Your task to perform on an android device: search for starred emails in the gmail app Image 0: 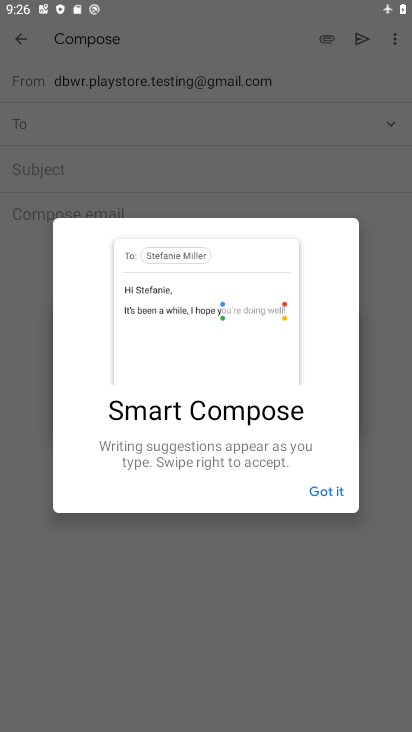
Step 0: press home button
Your task to perform on an android device: search for starred emails in the gmail app Image 1: 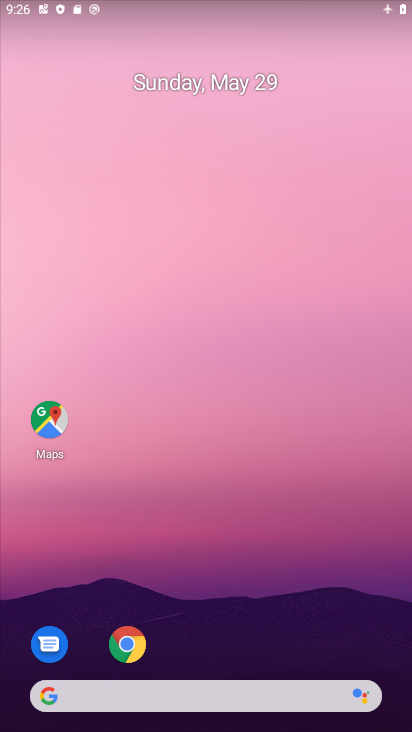
Step 1: drag from (301, 589) to (278, 89)
Your task to perform on an android device: search for starred emails in the gmail app Image 2: 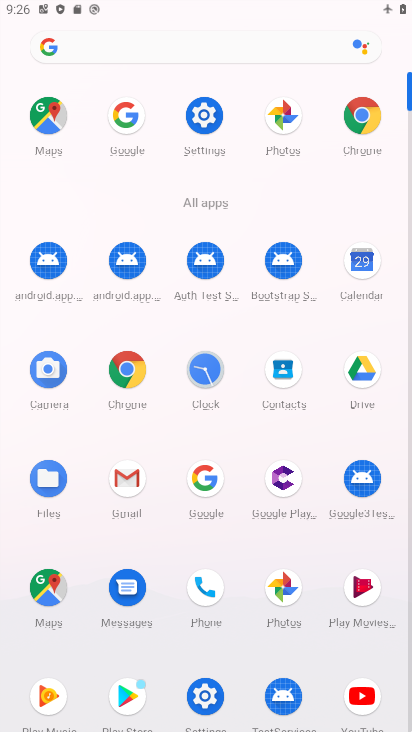
Step 2: click (122, 478)
Your task to perform on an android device: search for starred emails in the gmail app Image 3: 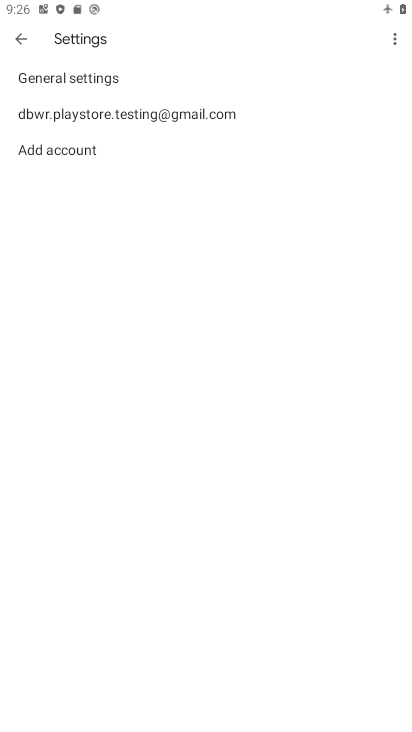
Step 3: click (96, 111)
Your task to perform on an android device: search for starred emails in the gmail app Image 4: 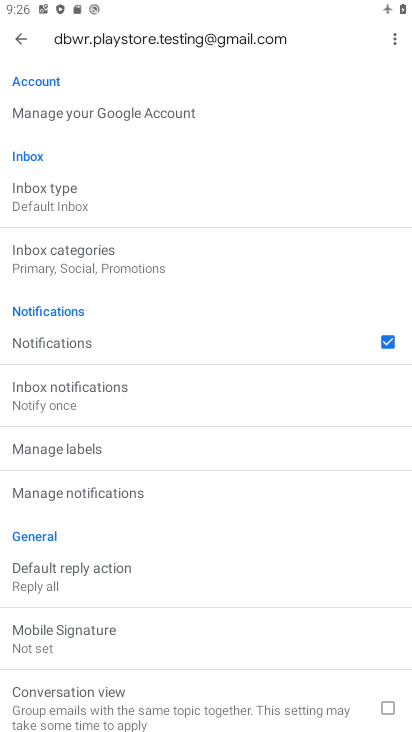
Step 4: click (29, 36)
Your task to perform on an android device: search for starred emails in the gmail app Image 5: 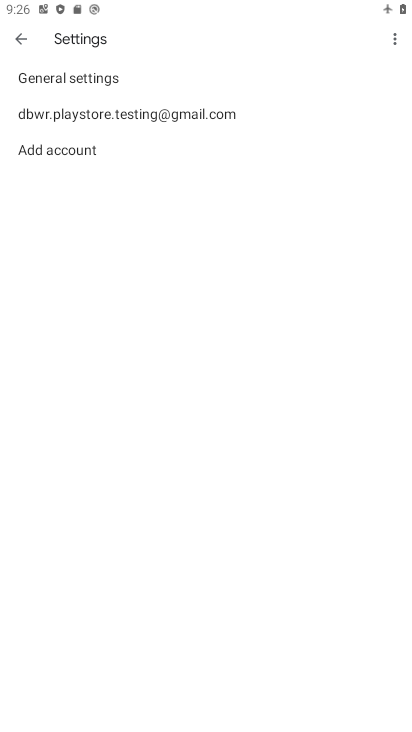
Step 5: click (27, 39)
Your task to perform on an android device: search for starred emails in the gmail app Image 6: 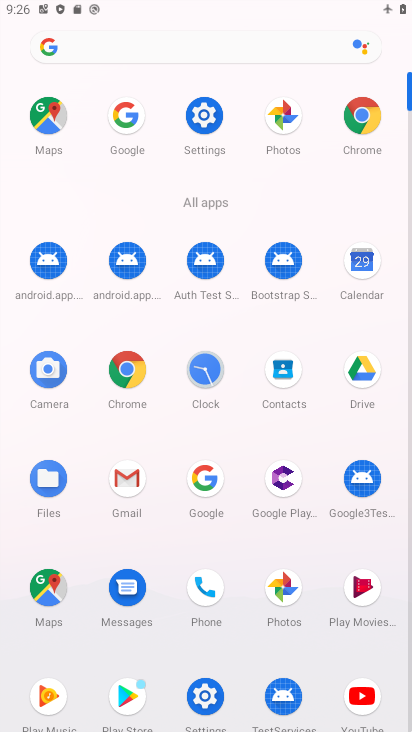
Step 6: click (125, 473)
Your task to perform on an android device: search for starred emails in the gmail app Image 7: 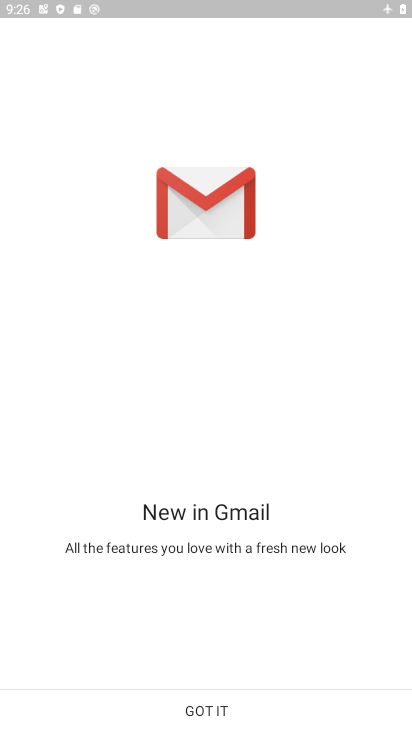
Step 7: click (200, 716)
Your task to perform on an android device: search for starred emails in the gmail app Image 8: 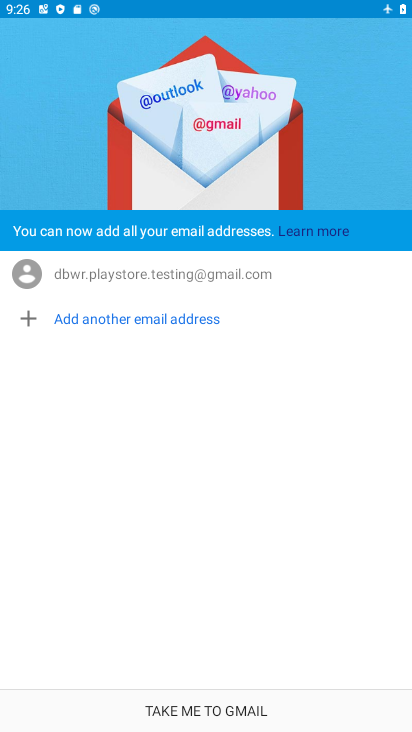
Step 8: click (197, 701)
Your task to perform on an android device: search for starred emails in the gmail app Image 9: 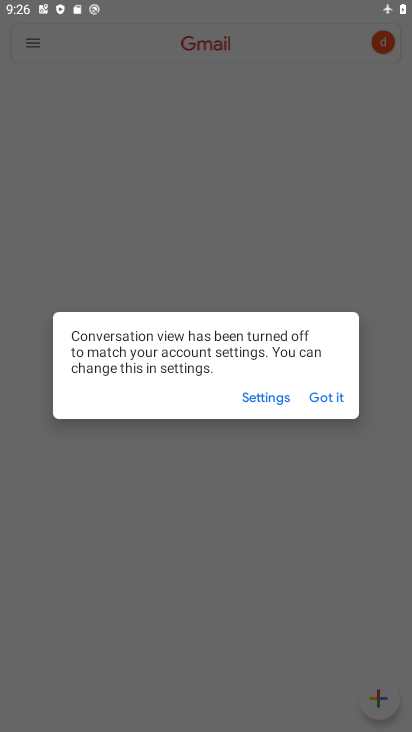
Step 9: click (324, 395)
Your task to perform on an android device: search for starred emails in the gmail app Image 10: 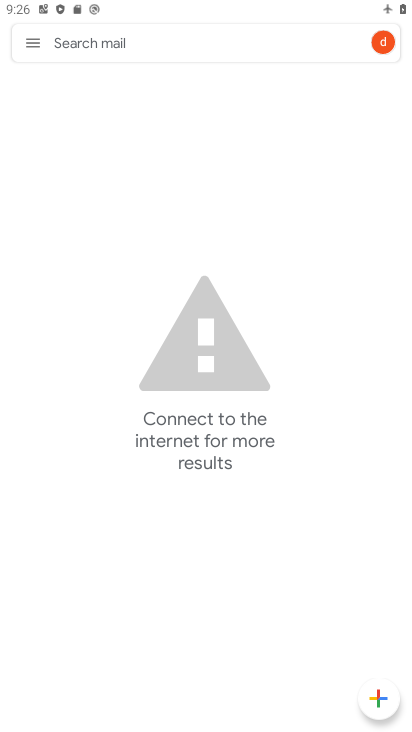
Step 10: click (30, 47)
Your task to perform on an android device: search for starred emails in the gmail app Image 11: 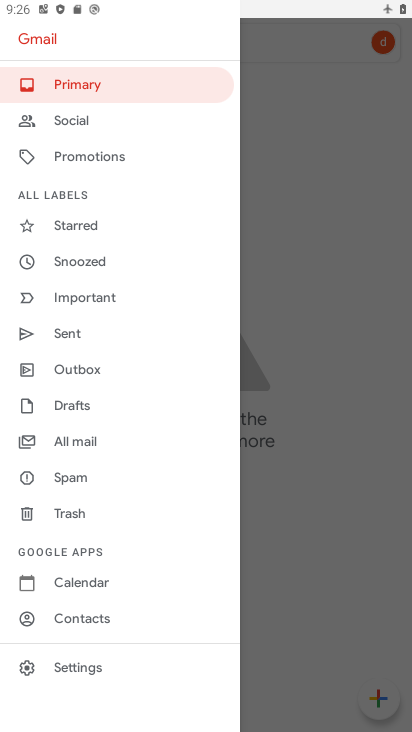
Step 11: click (70, 232)
Your task to perform on an android device: search for starred emails in the gmail app Image 12: 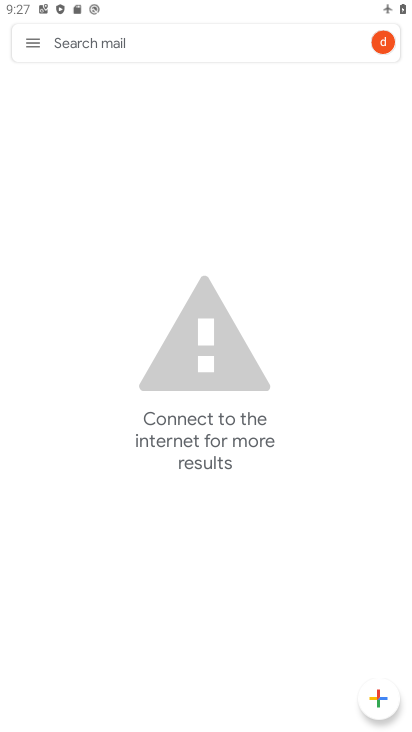
Step 12: task complete